Your task to perform on an android device: Open Chrome and go to the settings page Image 0: 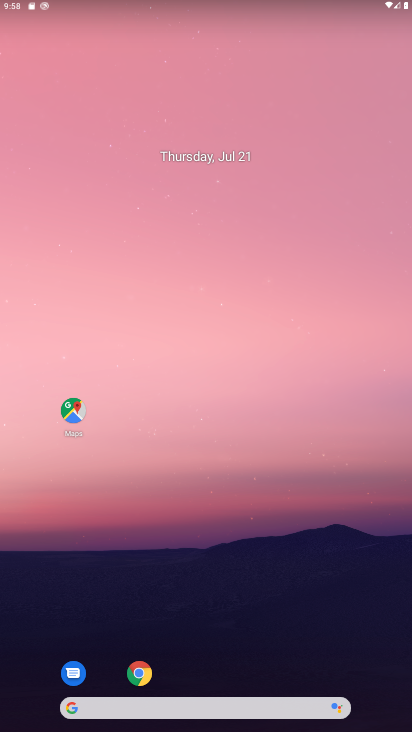
Step 0: click (139, 673)
Your task to perform on an android device: Open Chrome and go to the settings page Image 1: 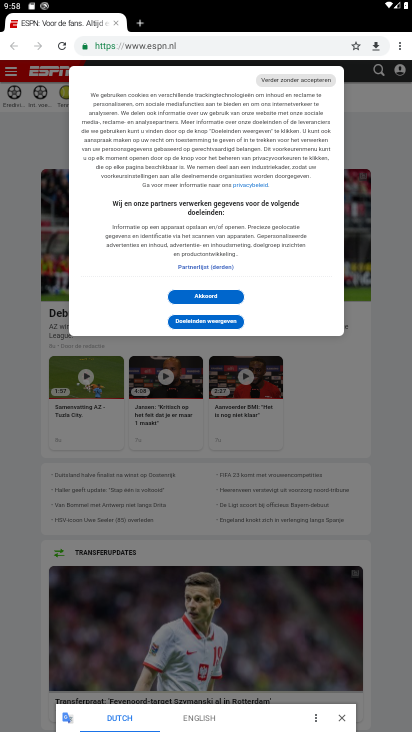
Step 1: click (396, 46)
Your task to perform on an android device: Open Chrome and go to the settings page Image 2: 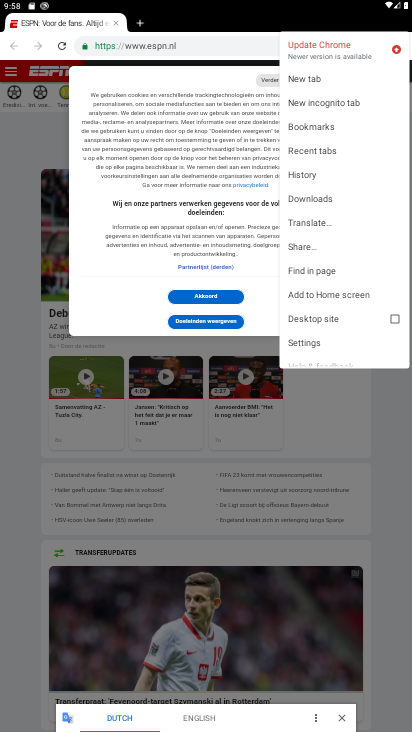
Step 2: click (304, 339)
Your task to perform on an android device: Open Chrome and go to the settings page Image 3: 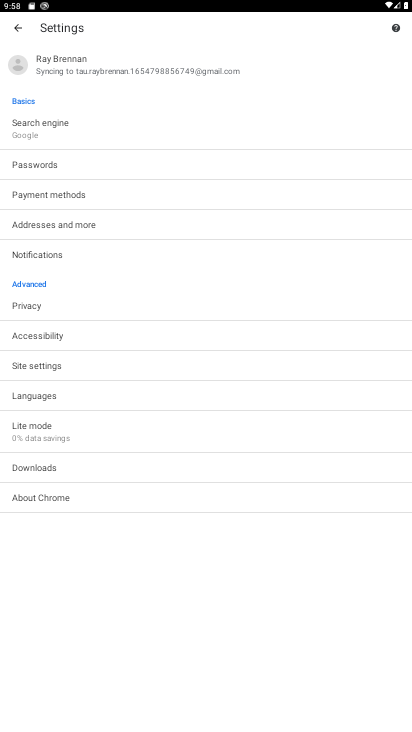
Step 3: task complete